Your task to perform on an android device: turn notification dots on Image 0: 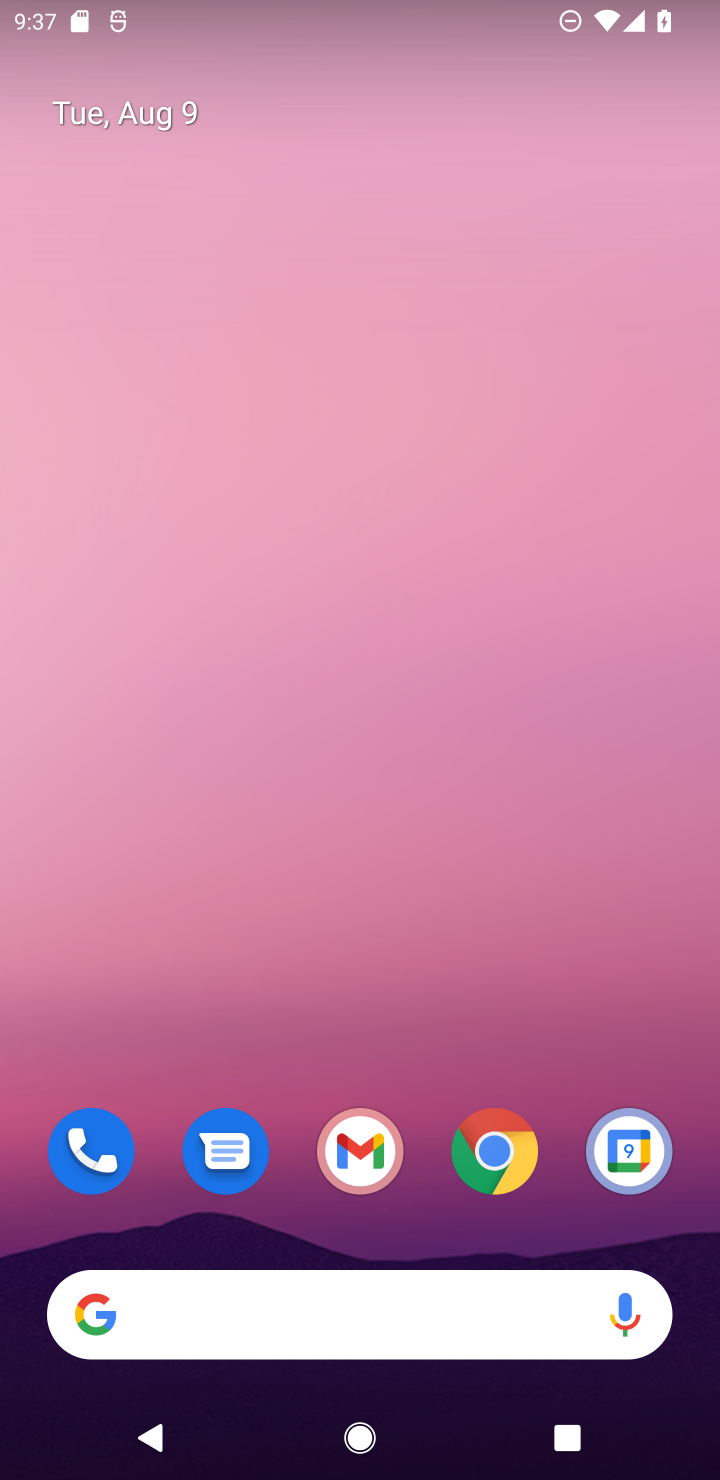
Step 0: drag from (383, 1224) to (379, 661)
Your task to perform on an android device: turn notification dots on Image 1: 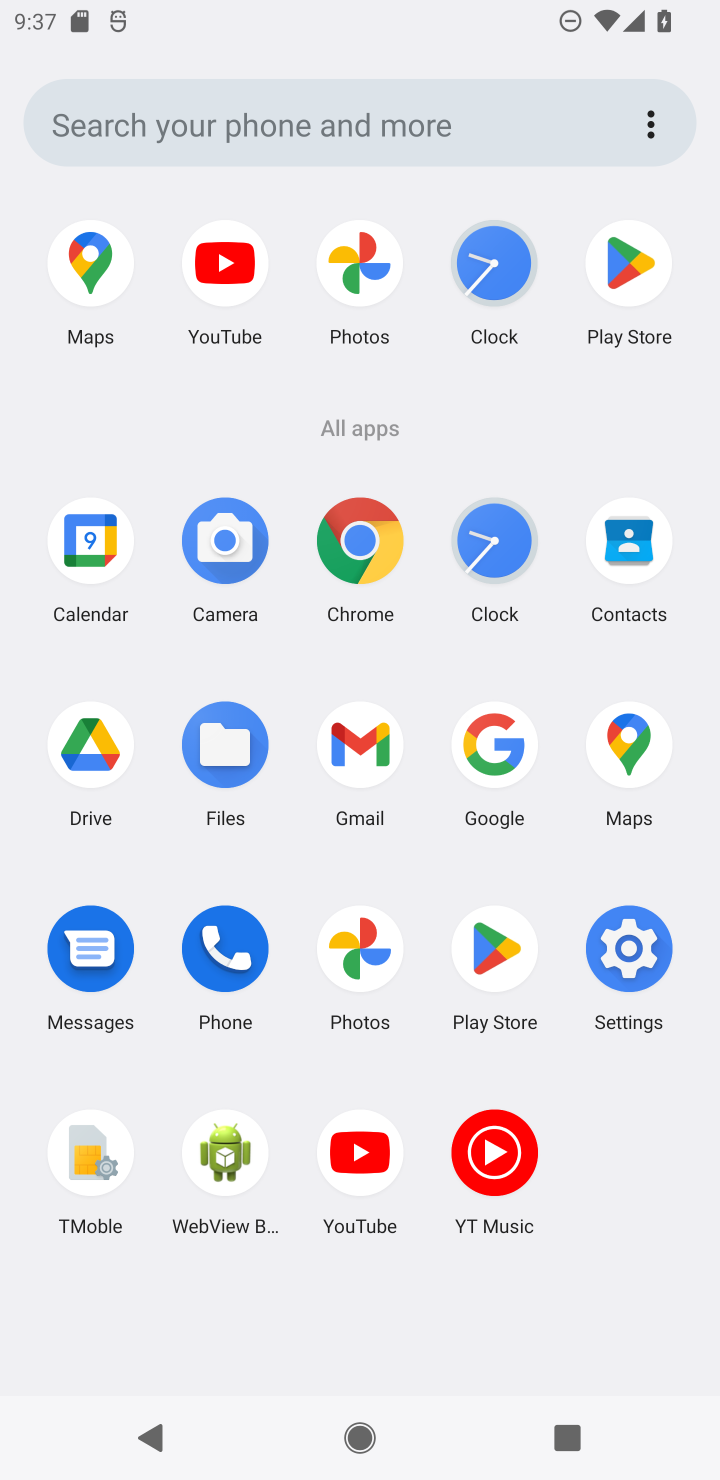
Step 1: click (616, 942)
Your task to perform on an android device: turn notification dots on Image 2: 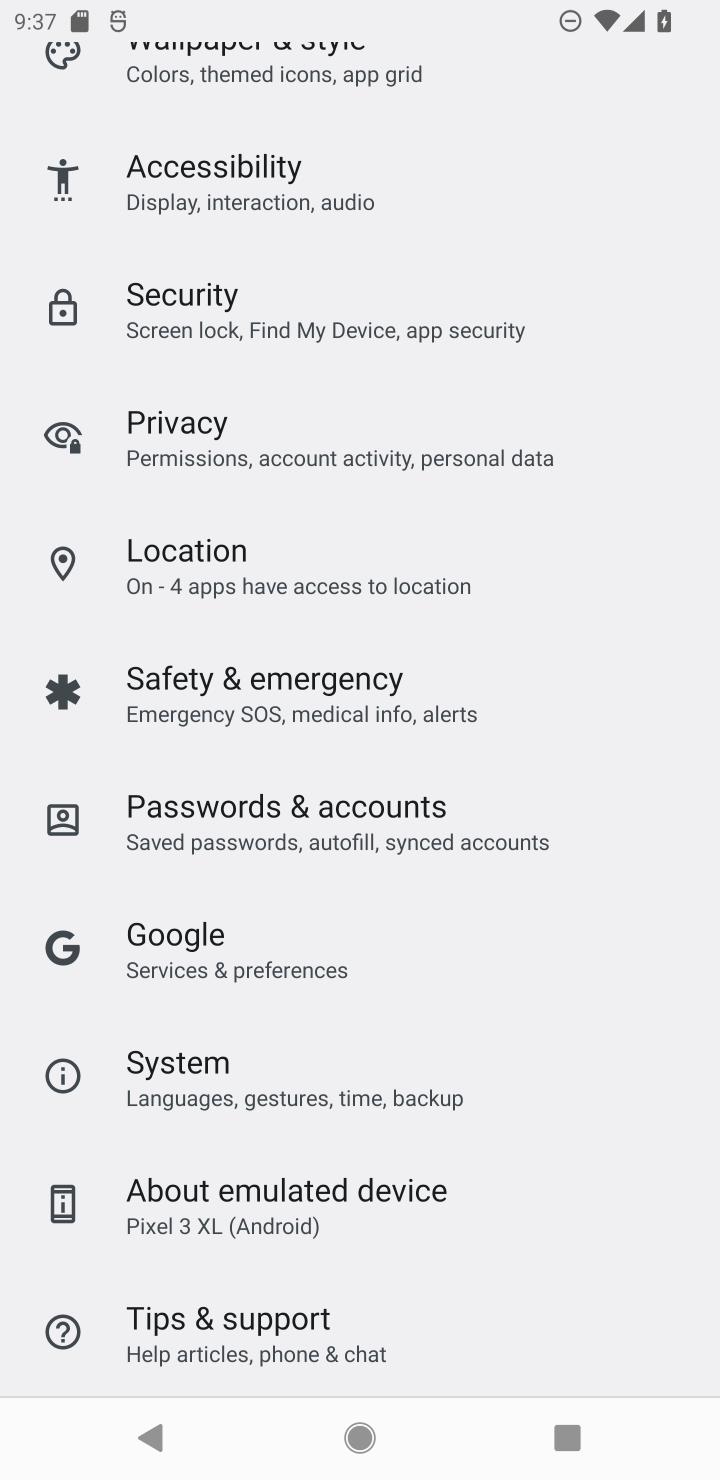
Step 2: drag from (528, 429) to (508, 1273)
Your task to perform on an android device: turn notification dots on Image 3: 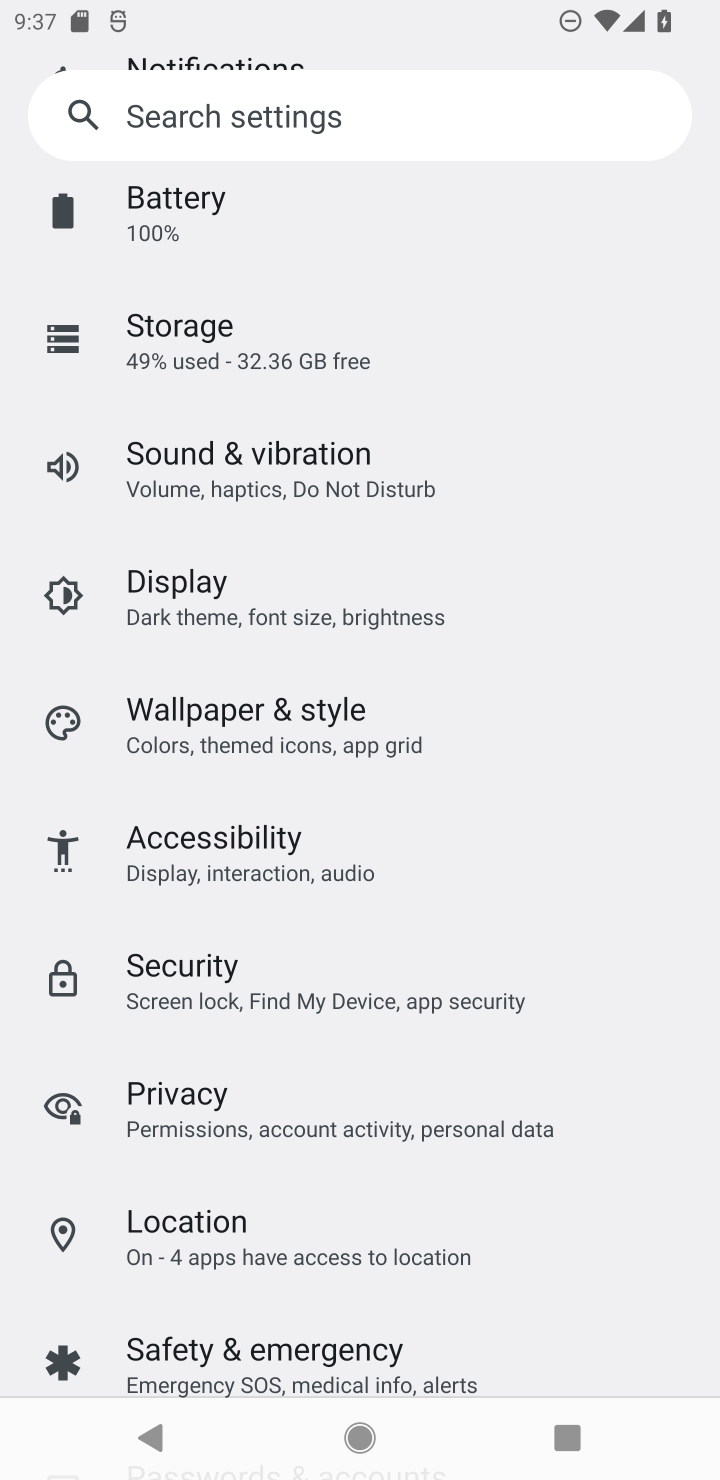
Step 3: drag from (524, 460) to (492, 707)
Your task to perform on an android device: turn notification dots on Image 4: 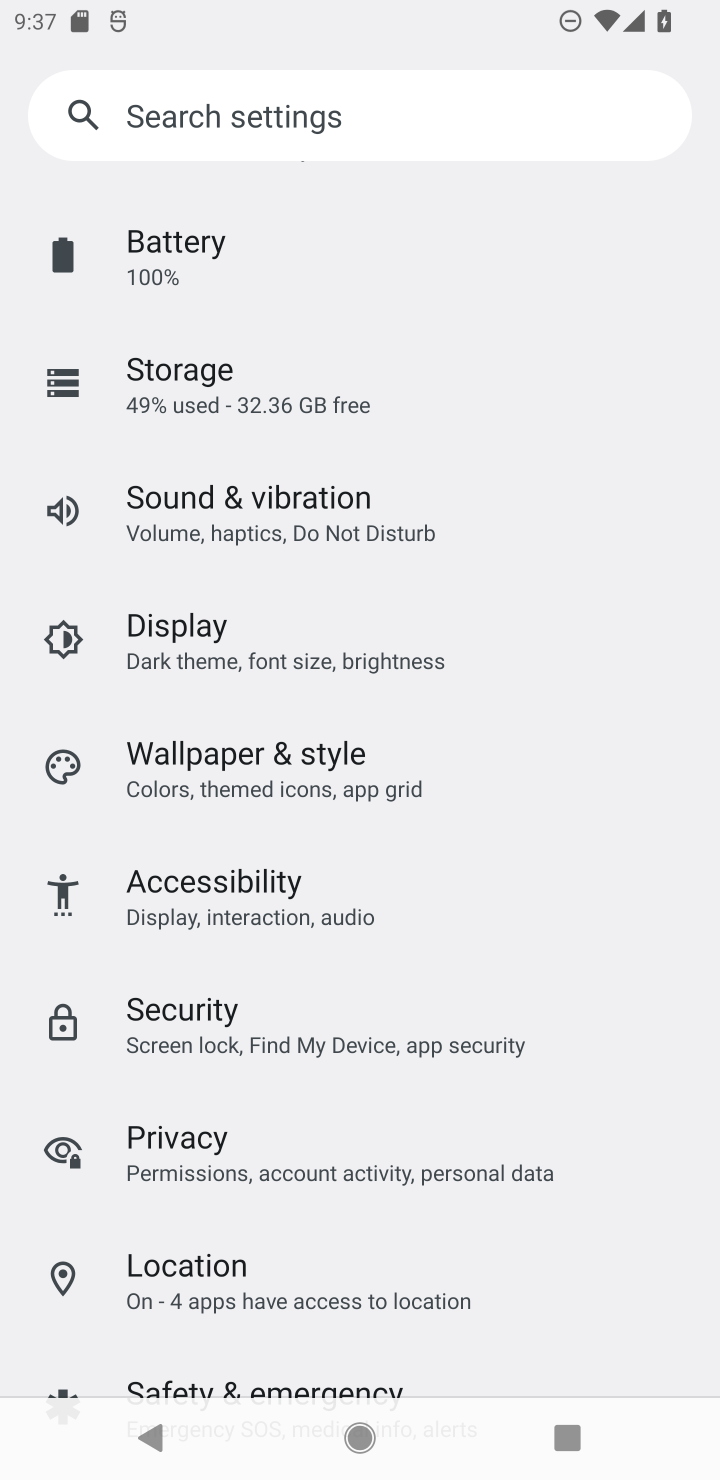
Step 4: drag from (489, 704) to (562, 701)
Your task to perform on an android device: turn notification dots on Image 5: 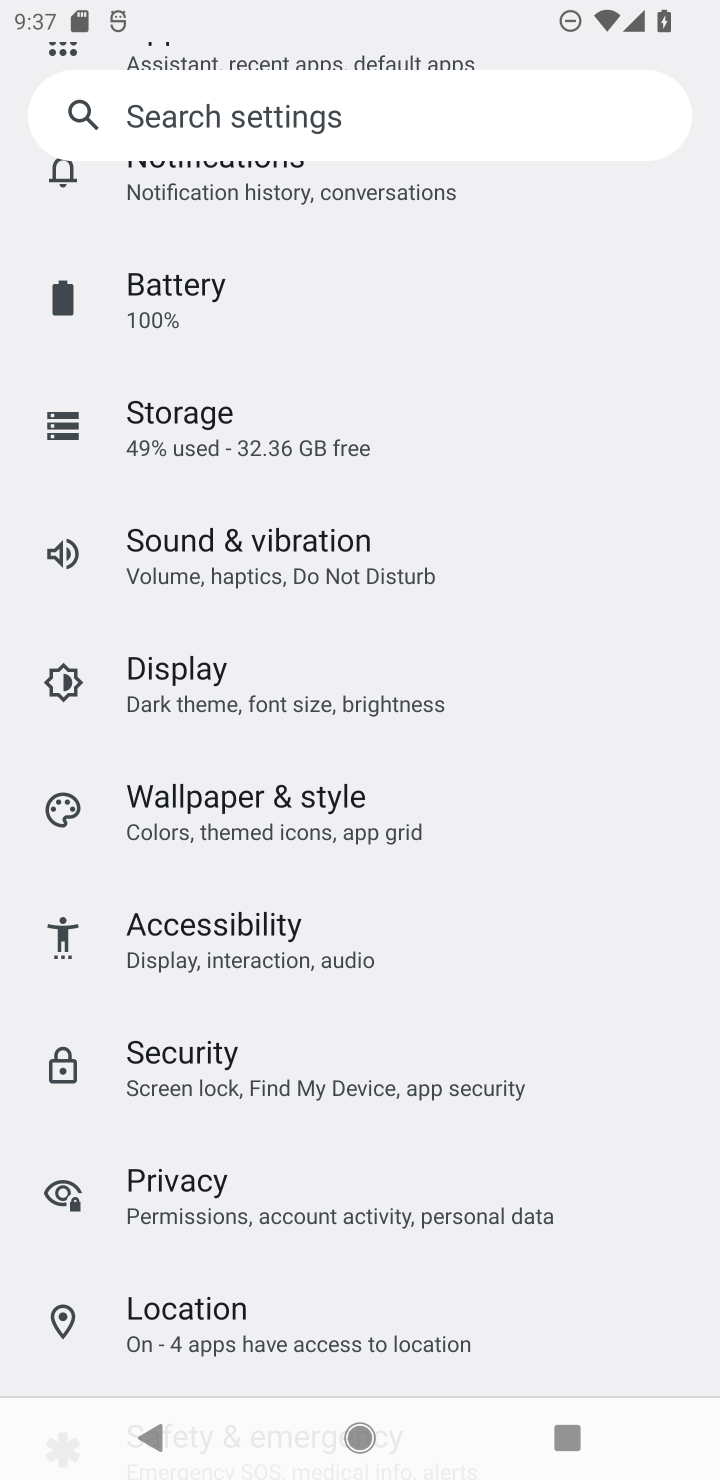
Step 5: click (323, 188)
Your task to perform on an android device: turn notification dots on Image 6: 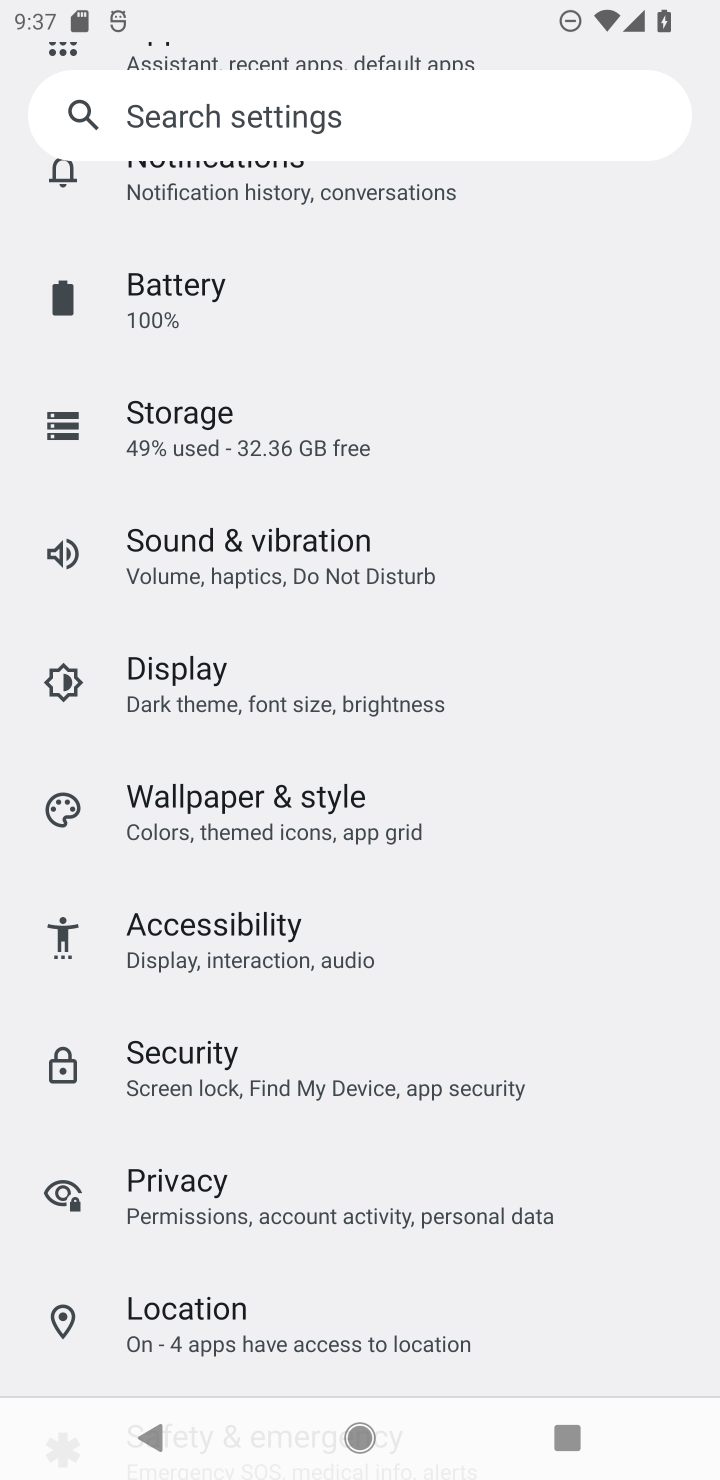
Step 6: click (278, 167)
Your task to perform on an android device: turn notification dots on Image 7: 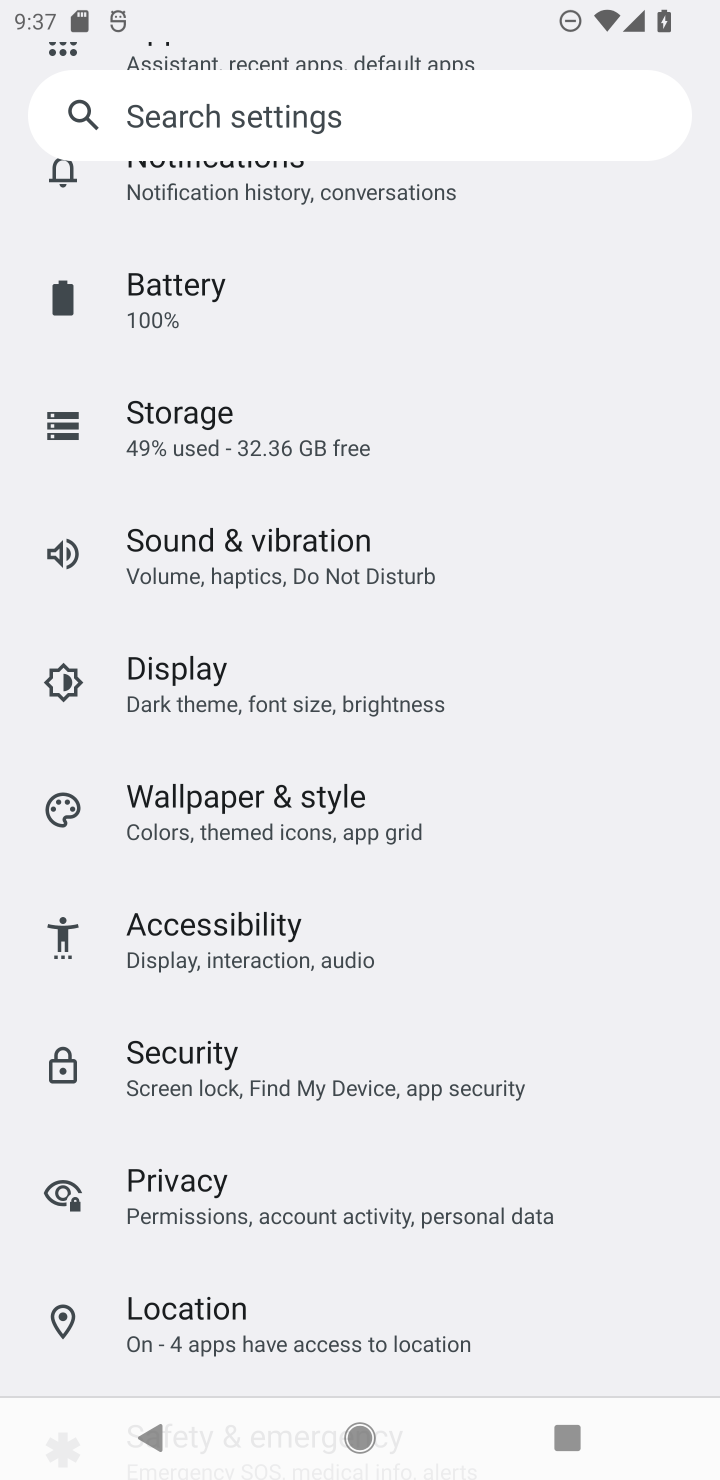
Step 7: drag from (468, 336) to (471, 582)
Your task to perform on an android device: turn notification dots on Image 8: 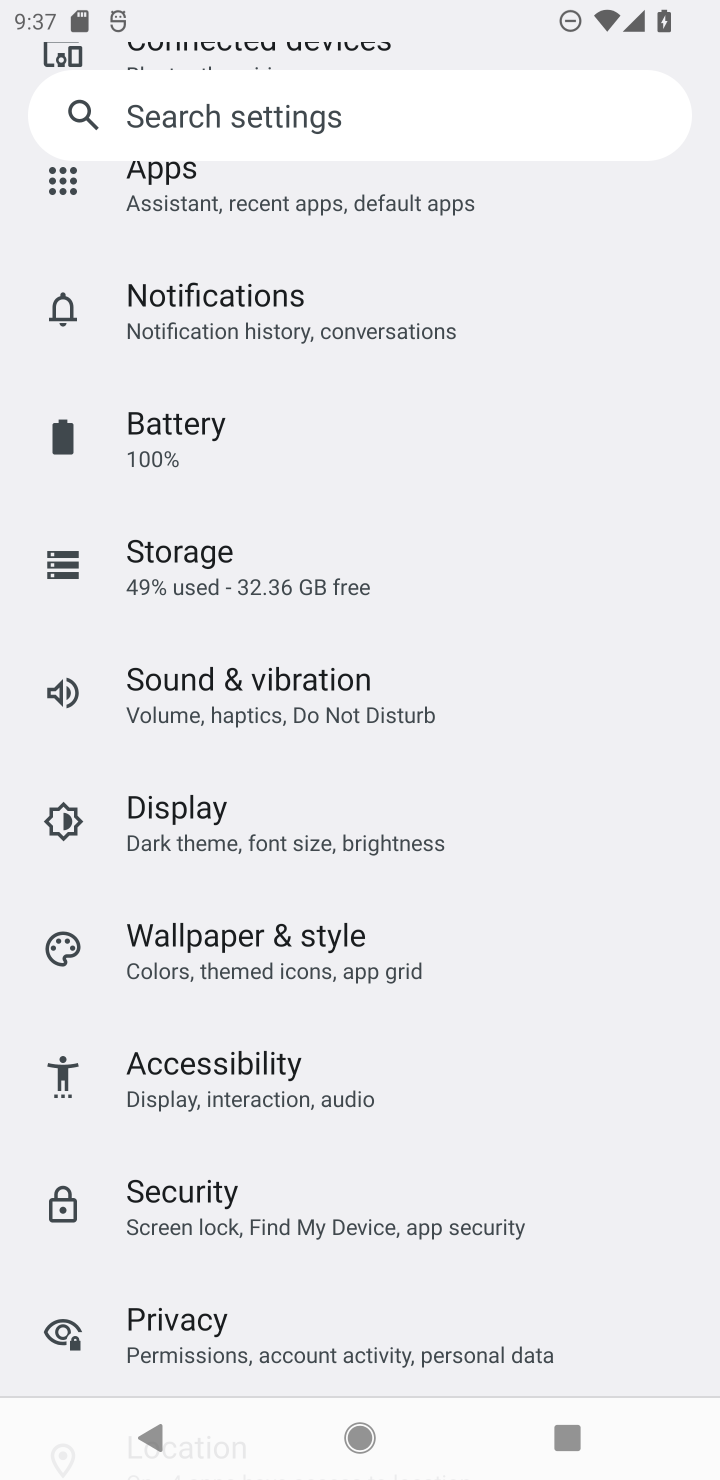
Step 8: click (158, 304)
Your task to perform on an android device: turn notification dots on Image 9: 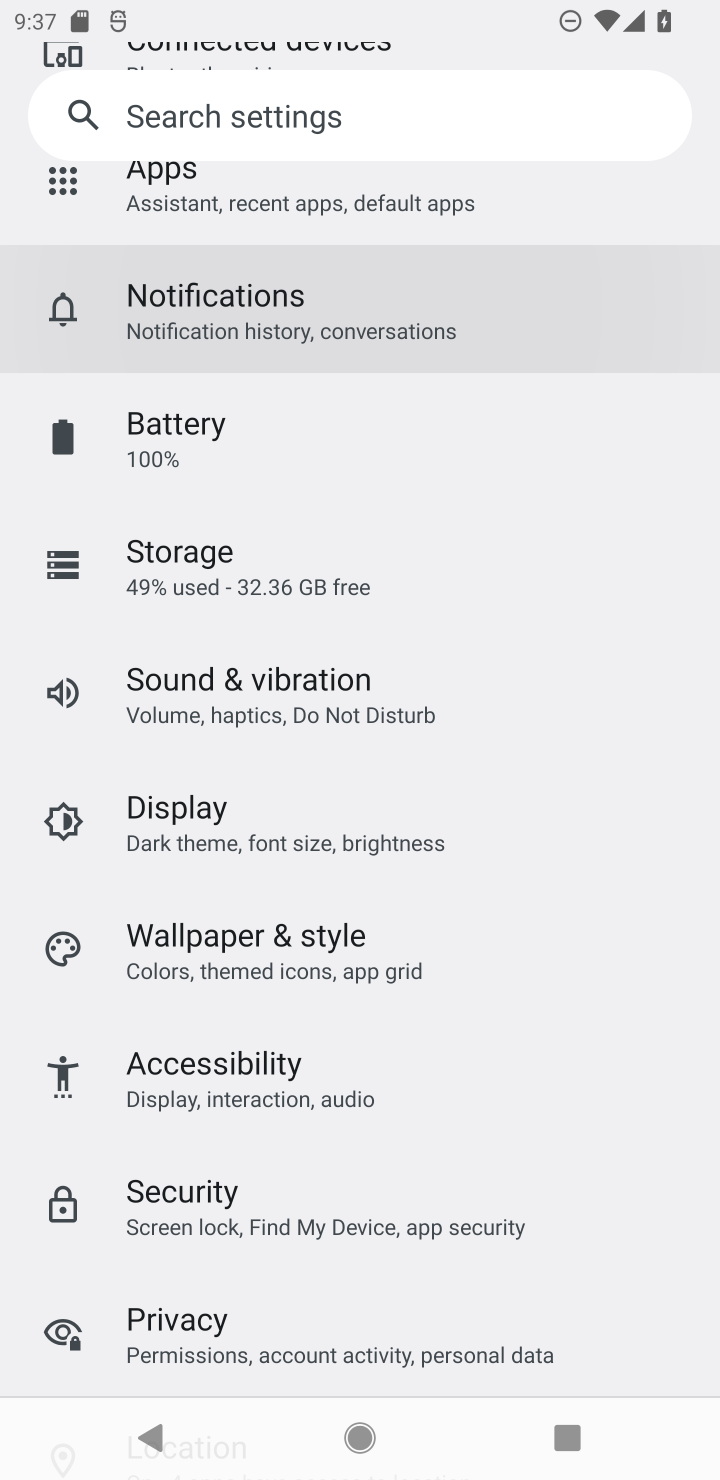
Step 9: click (158, 304)
Your task to perform on an android device: turn notification dots on Image 10: 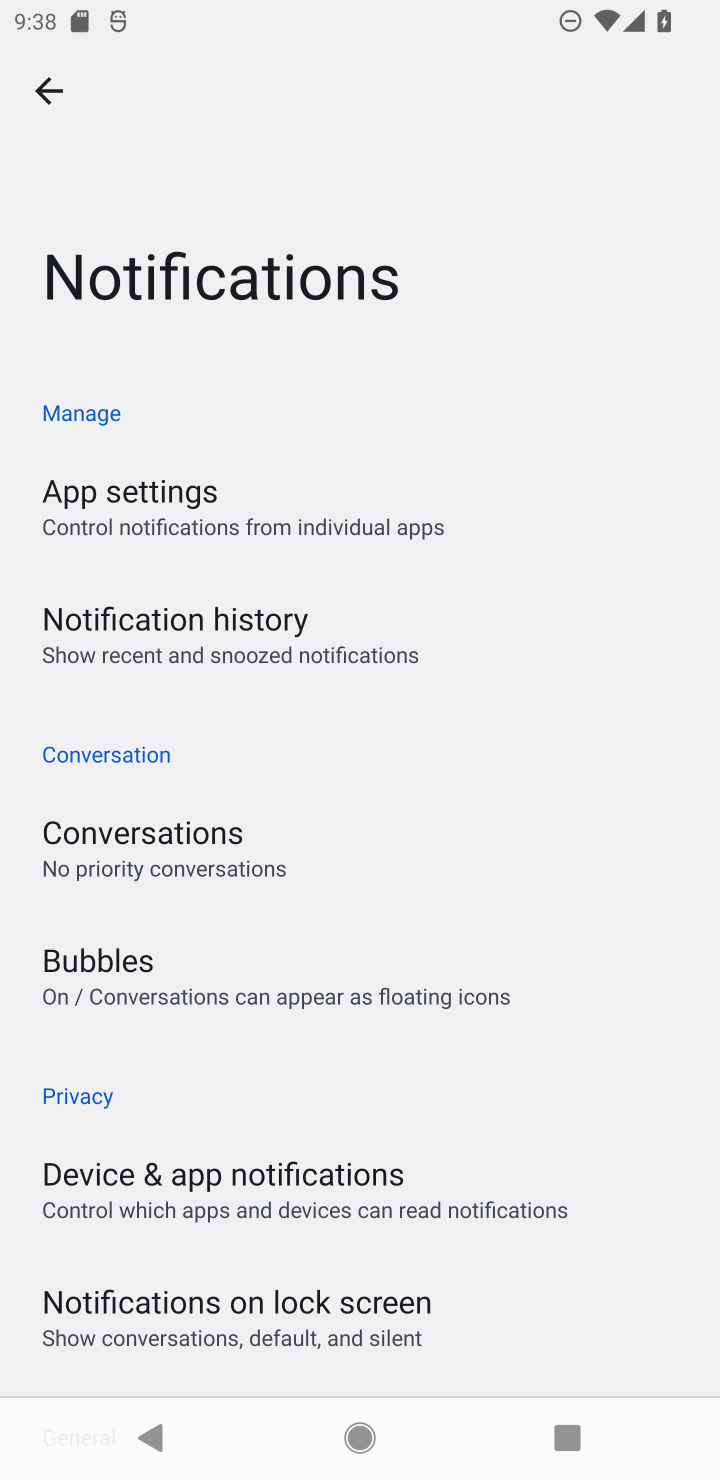
Step 10: task complete